Your task to perform on an android device: Open location settings Image 0: 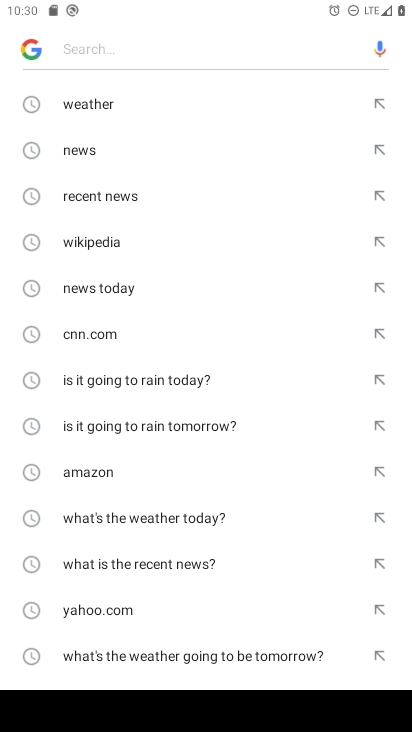
Step 0: press home button
Your task to perform on an android device: Open location settings Image 1: 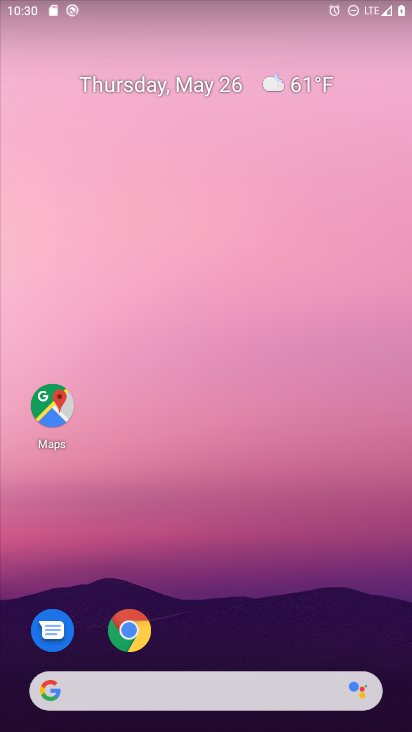
Step 1: drag from (193, 664) to (146, 209)
Your task to perform on an android device: Open location settings Image 2: 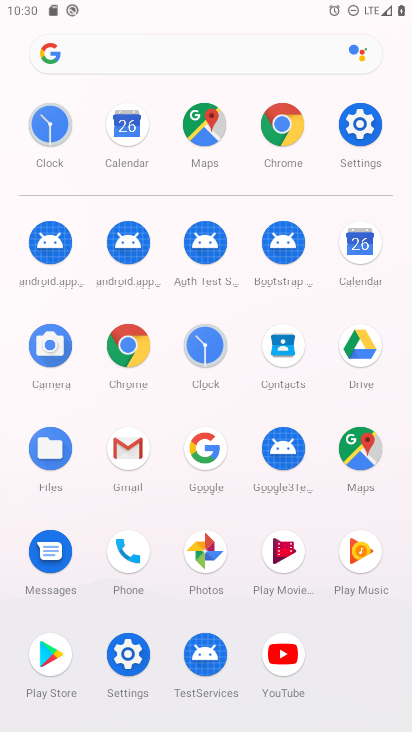
Step 2: click (371, 120)
Your task to perform on an android device: Open location settings Image 3: 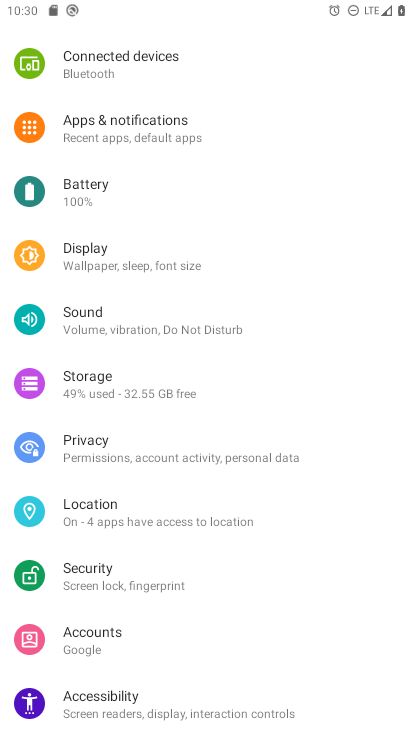
Step 3: click (85, 500)
Your task to perform on an android device: Open location settings Image 4: 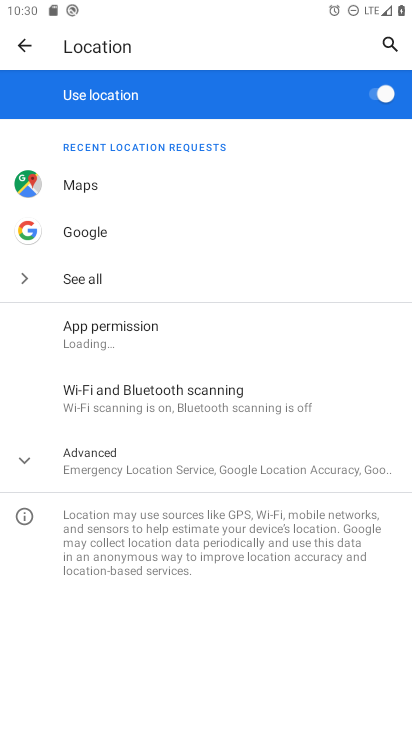
Step 4: task complete